Your task to perform on an android device: Open Google Chrome Image 0: 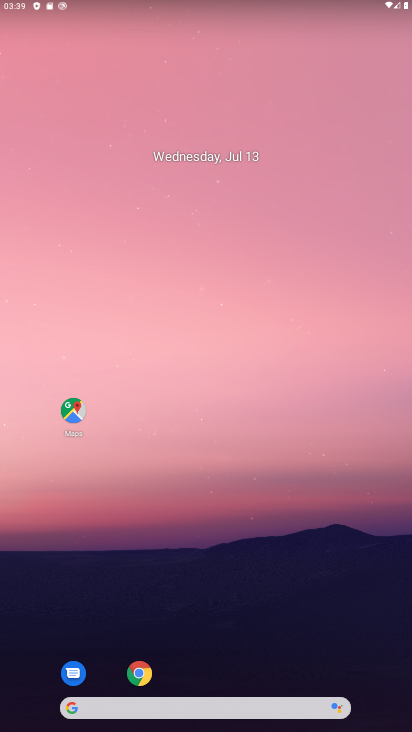
Step 0: drag from (334, 649) to (302, 50)
Your task to perform on an android device: Open Google Chrome Image 1: 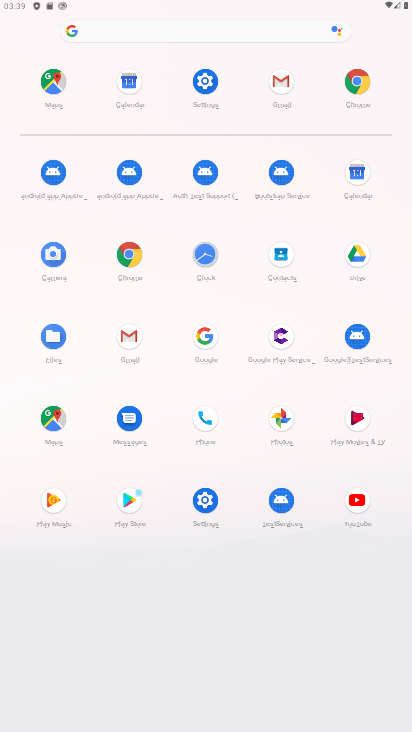
Step 1: click (126, 258)
Your task to perform on an android device: Open Google Chrome Image 2: 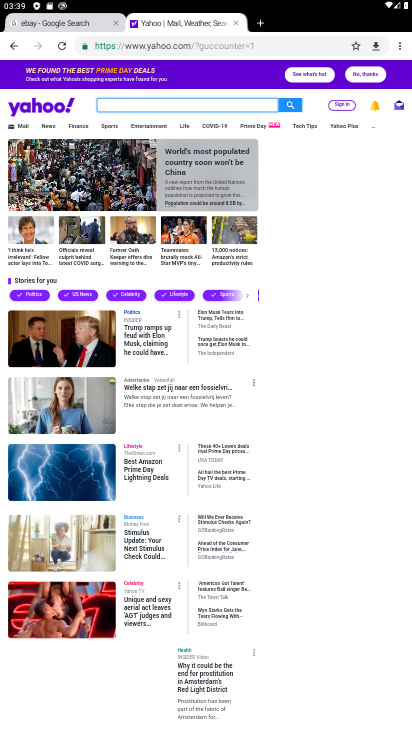
Step 2: drag from (400, 45) to (301, 75)
Your task to perform on an android device: Open Google Chrome Image 3: 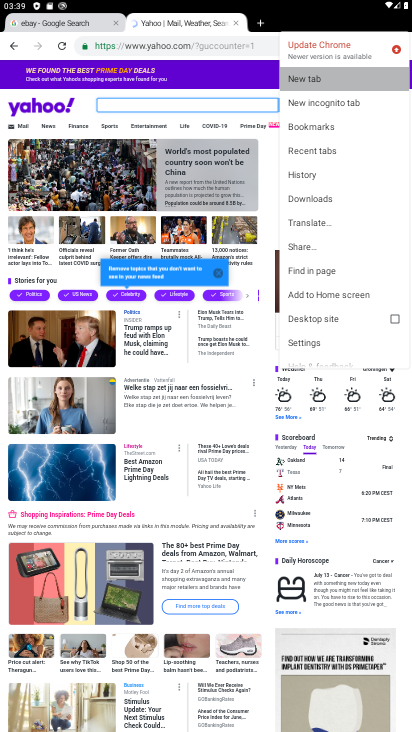
Step 3: click (301, 75)
Your task to perform on an android device: Open Google Chrome Image 4: 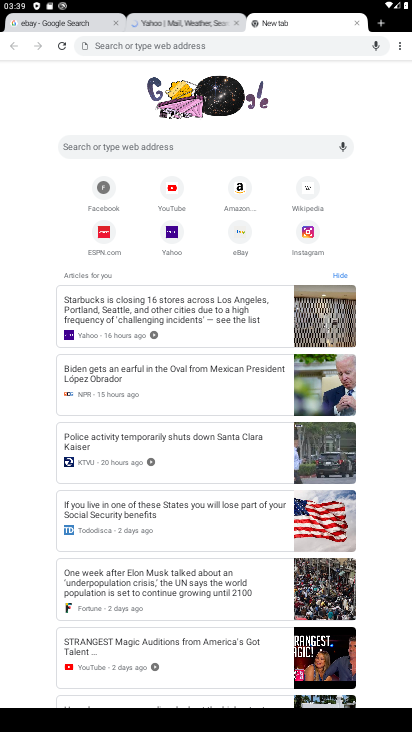
Step 4: task complete